Your task to perform on an android device: Open Android settings Image 0: 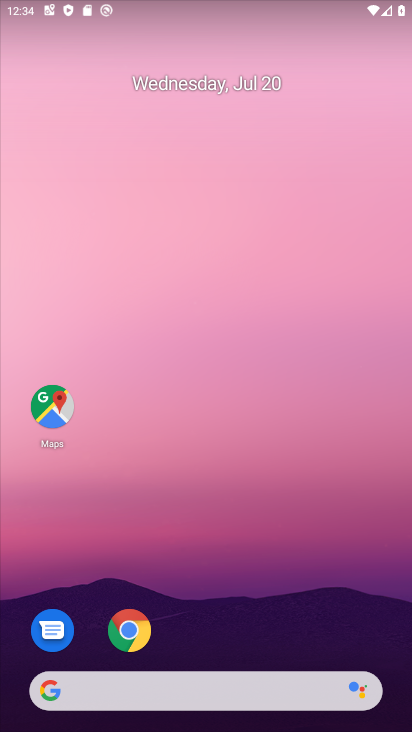
Step 0: press home button
Your task to perform on an android device: Open Android settings Image 1: 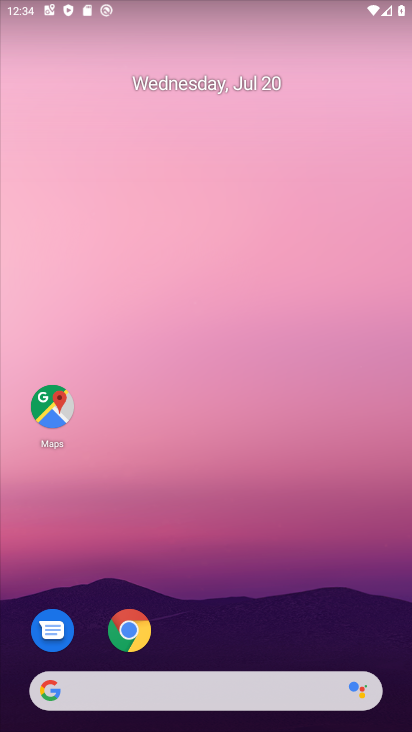
Step 1: drag from (287, 604) to (240, 105)
Your task to perform on an android device: Open Android settings Image 2: 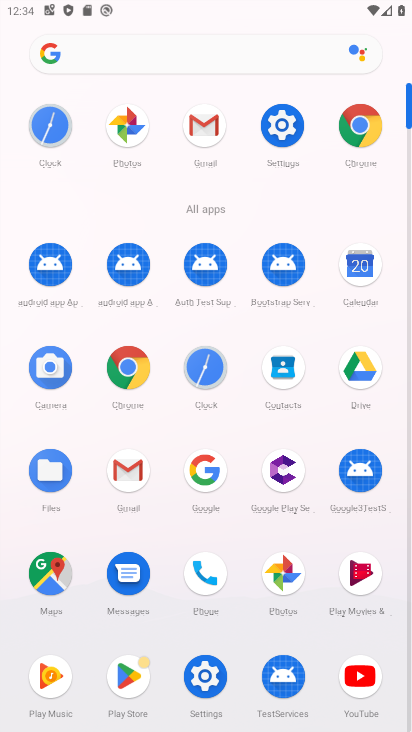
Step 2: click (268, 117)
Your task to perform on an android device: Open Android settings Image 3: 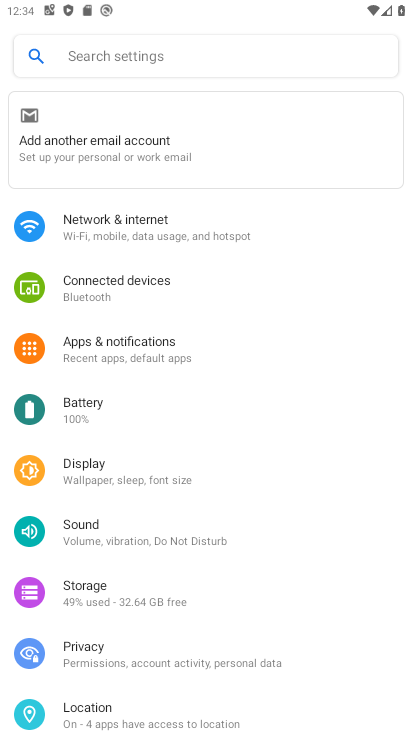
Step 3: task complete